Your task to perform on an android device: turn on priority inbox in the gmail app Image 0: 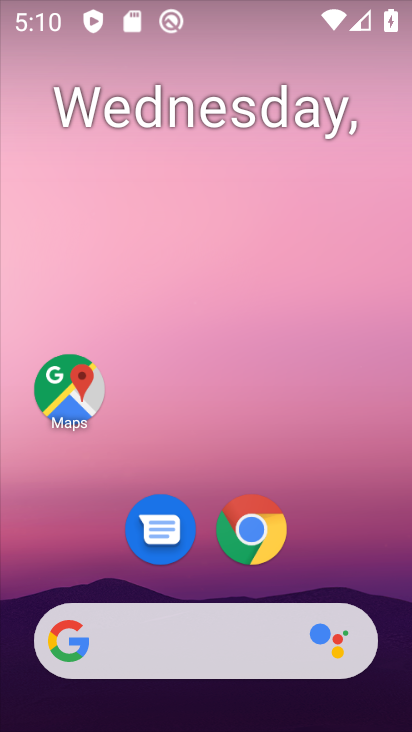
Step 0: drag from (326, 497) to (273, 64)
Your task to perform on an android device: turn on priority inbox in the gmail app Image 1: 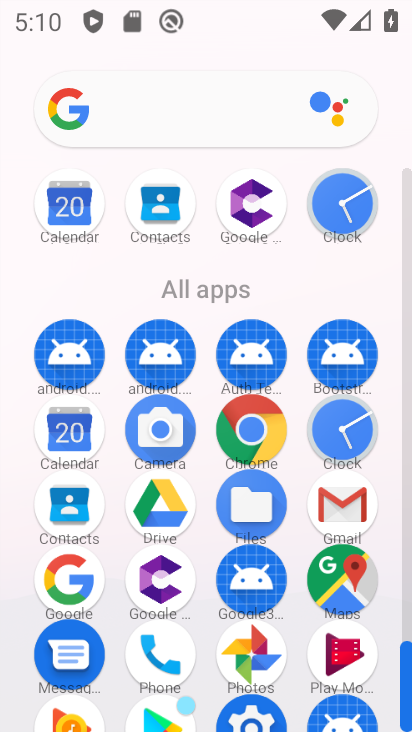
Step 1: drag from (10, 506) to (21, 278)
Your task to perform on an android device: turn on priority inbox in the gmail app Image 2: 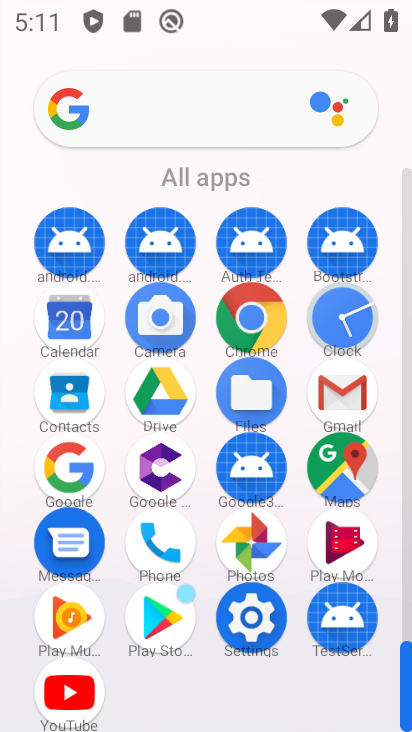
Step 2: click (340, 388)
Your task to perform on an android device: turn on priority inbox in the gmail app Image 3: 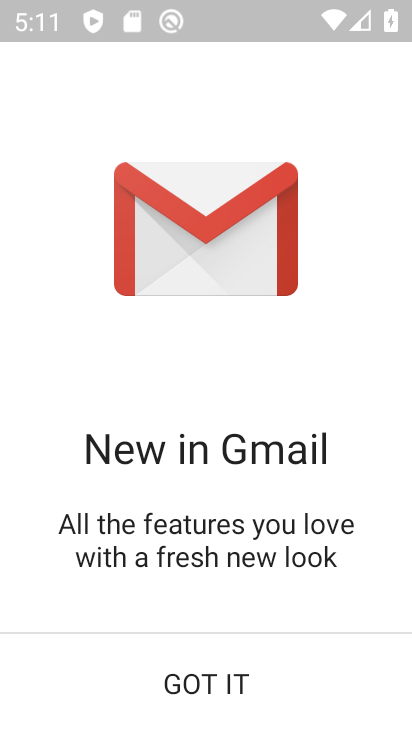
Step 3: click (228, 657)
Your task to perform on an android device: turn on priority inbox in the gmail app Image 4: 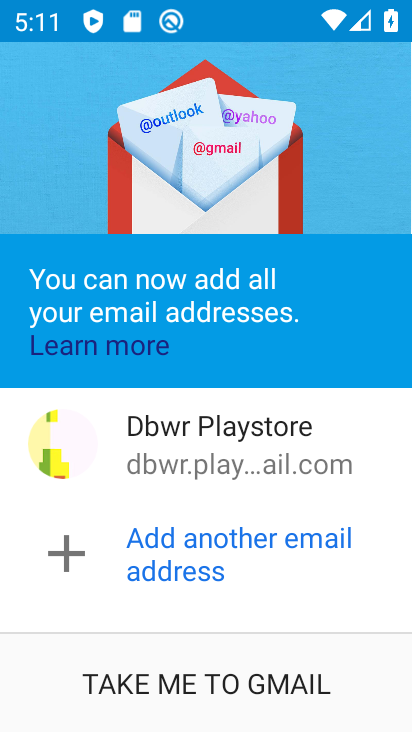
Step 4: click (222, 712)
Your task to perform on an android device: turn on priority inbox in the gmail app Image 5: 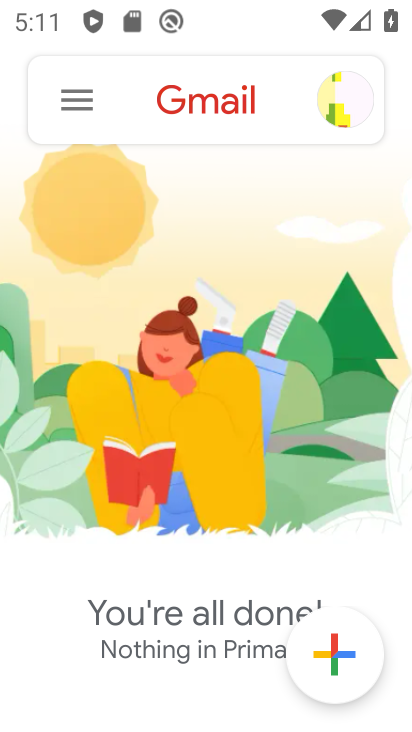
Step 5: click (81, 98)
Your task to perform on an android device: turn on priority inbox in the gmail app Image 6: 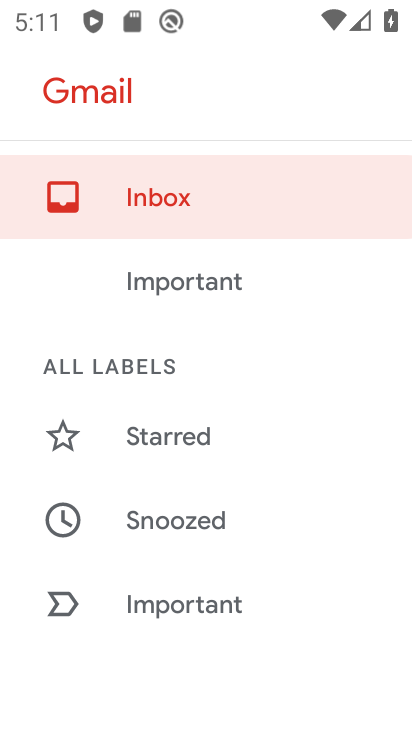
Step 6: drag from (242, 551) to (286, 169)
Your task to perform on an android device: turn on priority inbox in the gmail app Image 7: 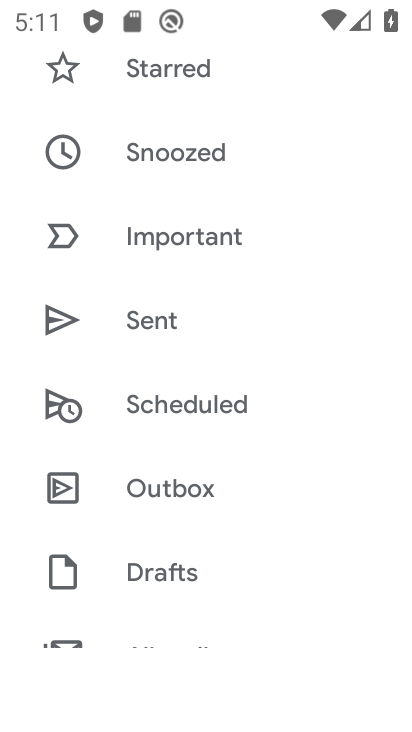
Step 7: drag from (264, 549) to (264, 154)
Your task to perform on an android device: turn on priority inbox in the gmail app Image 8: 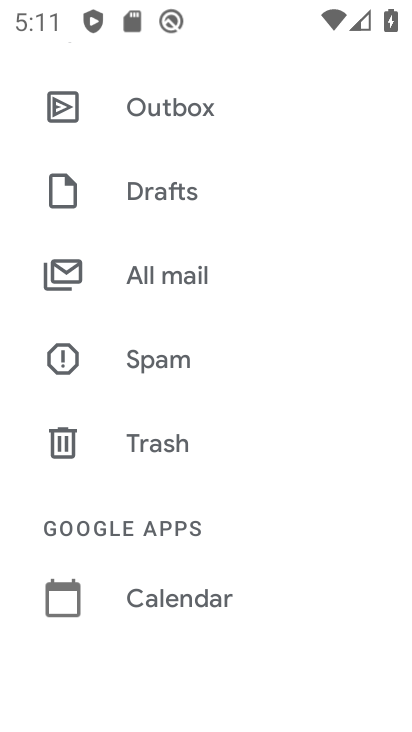
Step 8: drag from (212, 533) to (247, 146)
Your task to perform on an android device: turn on priority inbox in the gmail app Image 9: 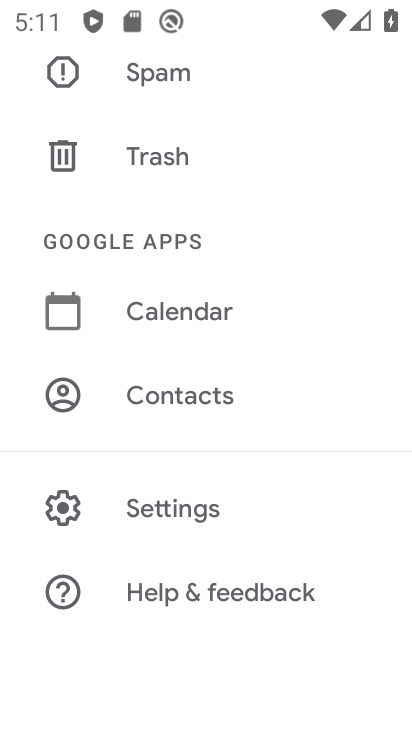
Step 9: click (176, 507)
Your task to perform on an android device: turn on priority inbox in the gmail app Image 10: 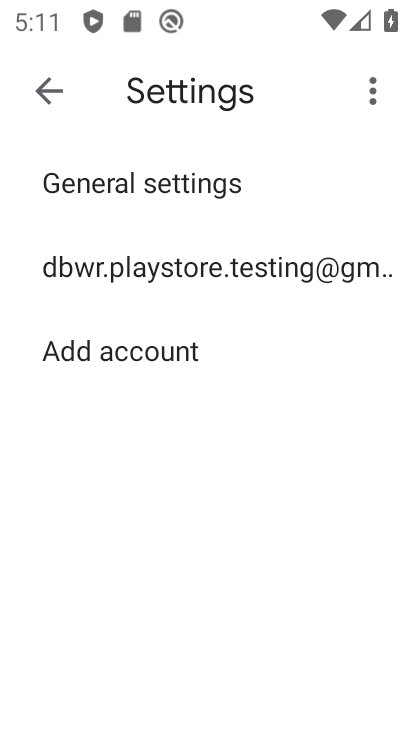
Step 10: click (245, 278)
Your task to perform on an android device: turn on priority inbox in the gmail app Image 11: 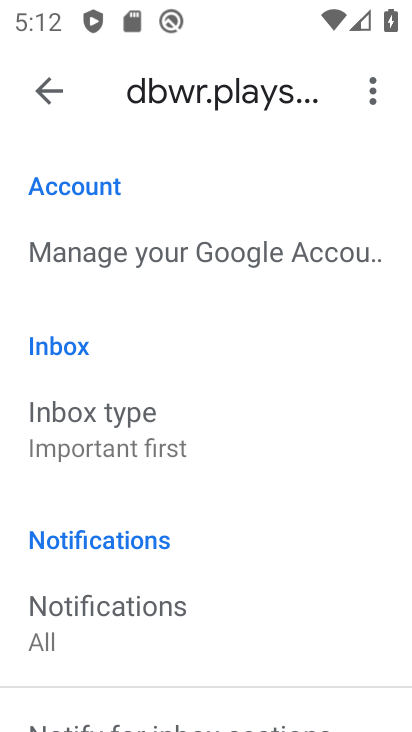
Step 11: drag from (238, 568) to (271, 188)
Your task to perform on an android device: turn on priority inbox in the gmail app Image 12: 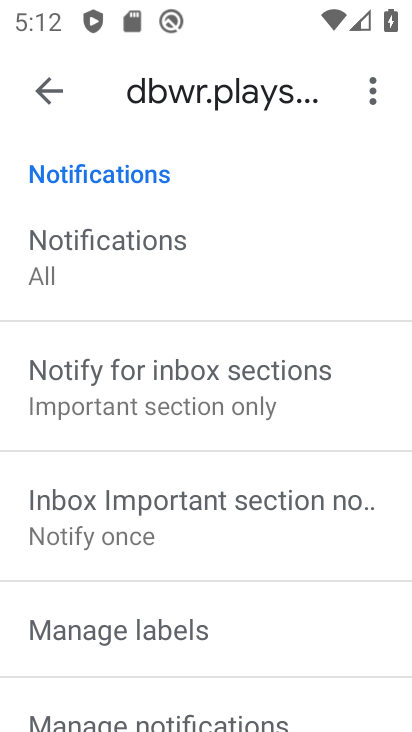
Step 12: drag from (256, 542) to (266, 192)
Your task to perform on an android device: turn on priority inbox in the gmail app Image 13: 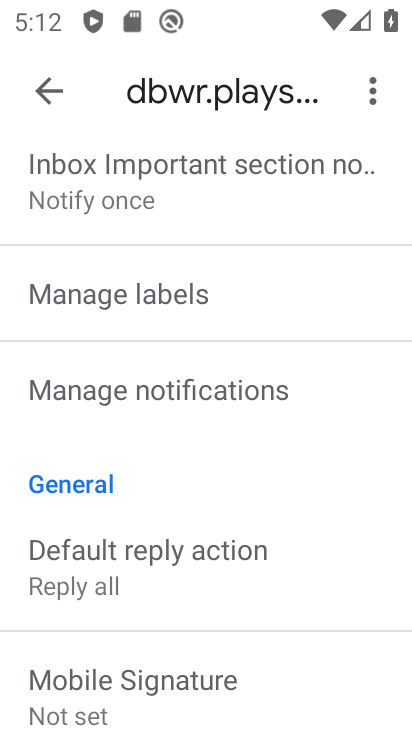
Step 13: drag from (228, 546) to (251, 175)
Your task to perform on an android device: turn on priority inbox in the gmail app Image 14: 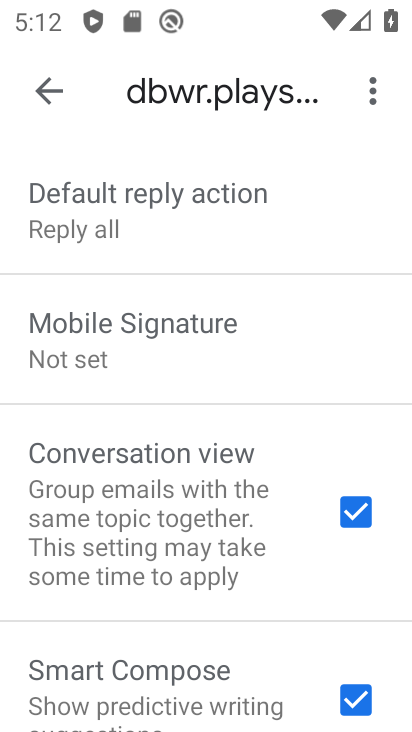
Step 14: drag from (227, 320) to (215, 565)
Your task to perform on an android device: turn on priority inbox in the gmail app Image 15: 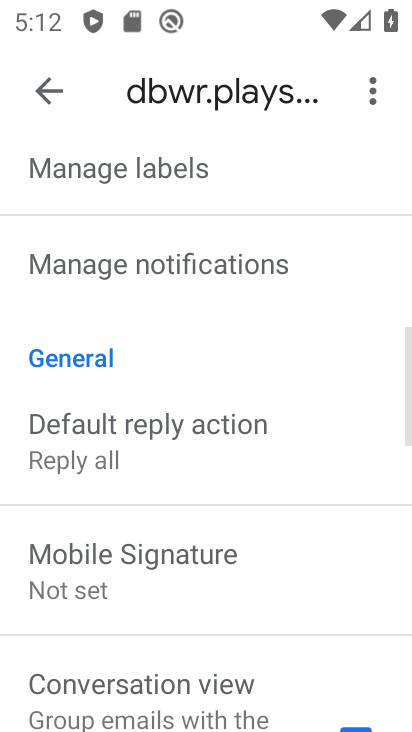
Step 15: drag from (234, 195) to (205, 528)
Your task to perform on an android device: turn on priority inbox in the gmail app Image 16: 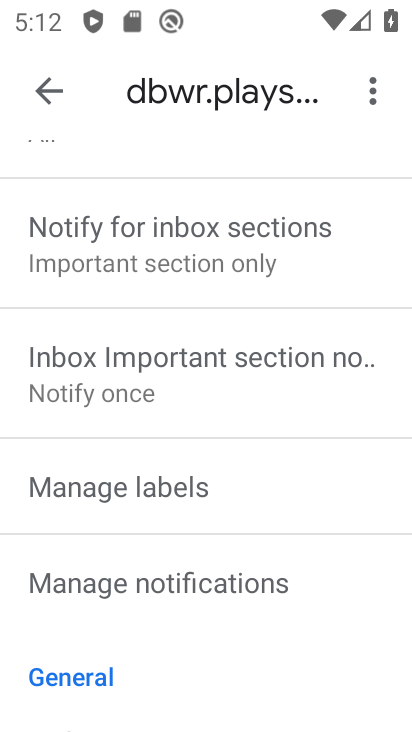
Step 16: drag from (256, 224) to (248, 633)
Your task to perform on an android device: turn on priority inbox in the gmail app Image 17: 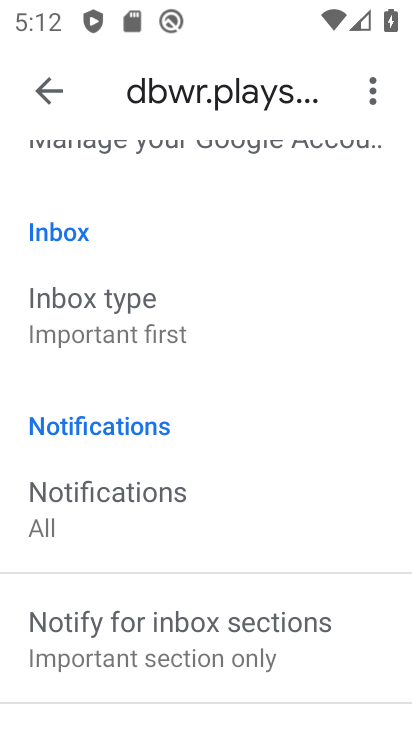
Step 17: drag from (244, 290) to (245, 539)
Your task to perform on an android device: turn on priority inbox in the gmail app Image 18: 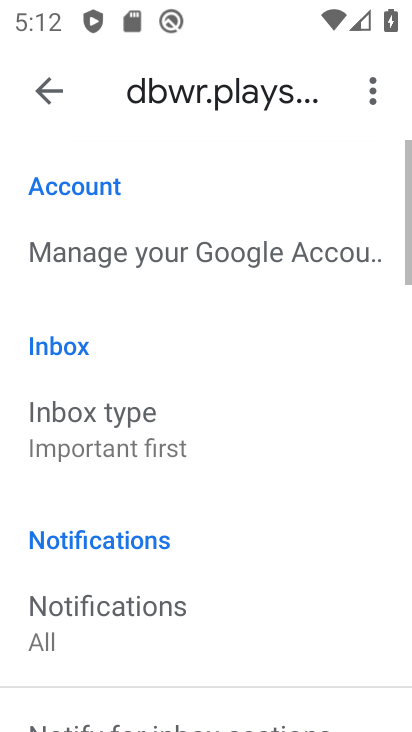
Step 18: click (179, 442)
Your task to perform on an android device: turn on priority inbox in the gmail app Image 19: 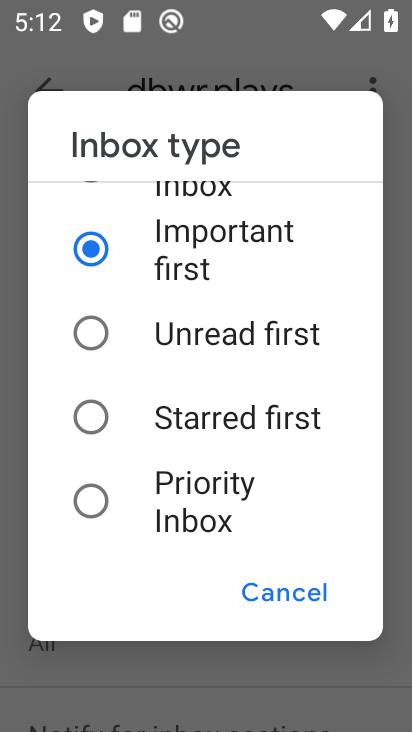
Step 19: click (185, 477)
Your task to perform on an android device: turn on priority inbox in the gmail app Image 20: 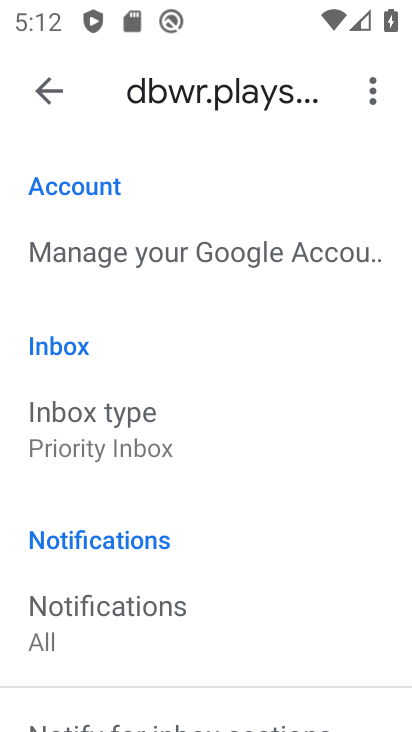
Step 20: task complete